Your task to perform on an android device: Go to accessibility settings Image 0: 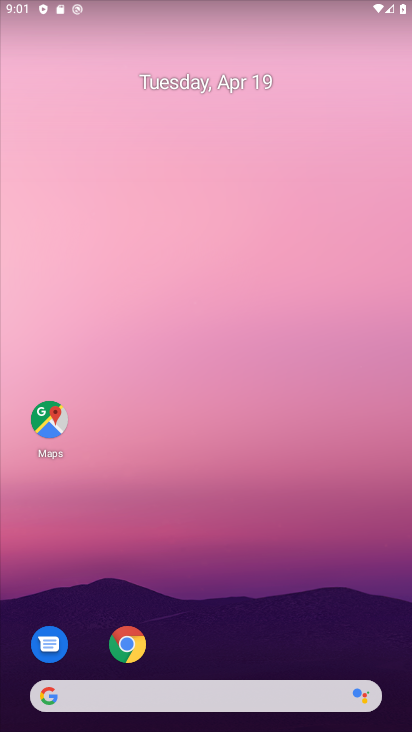
Step 0: drag from (280, 628) to (218, 14)
Your task to perform on an android device: Go to accessibility settings Image 1: 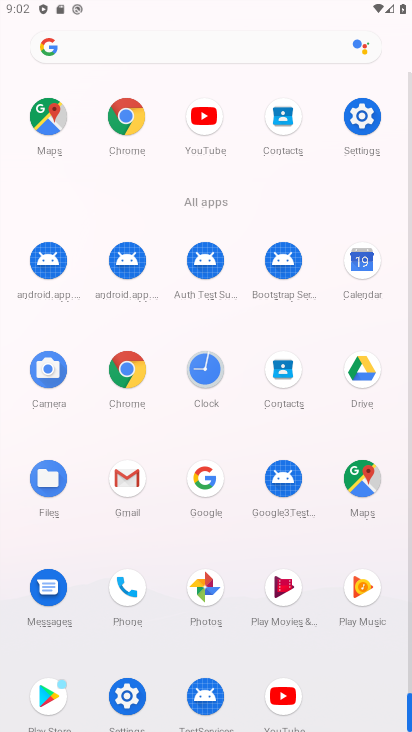
Step 1: click (354, 122)
Your task to perform on an android device: Go to accessibility settings Image 2: 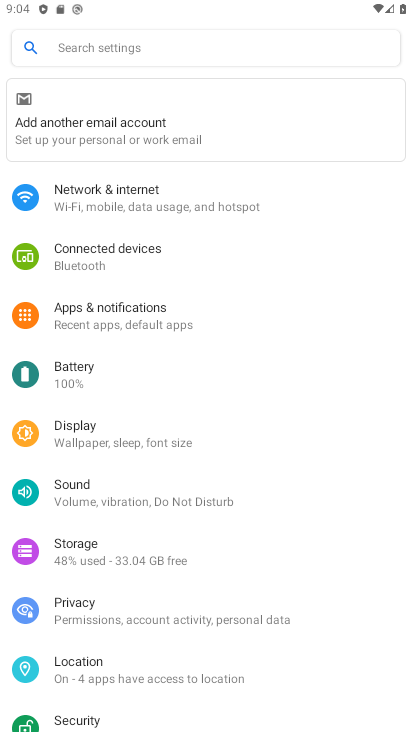
Step 2: drag from (213, 658) to (179, 5)
Your task to perform on an android device: Go to accessibility settings Image 3: 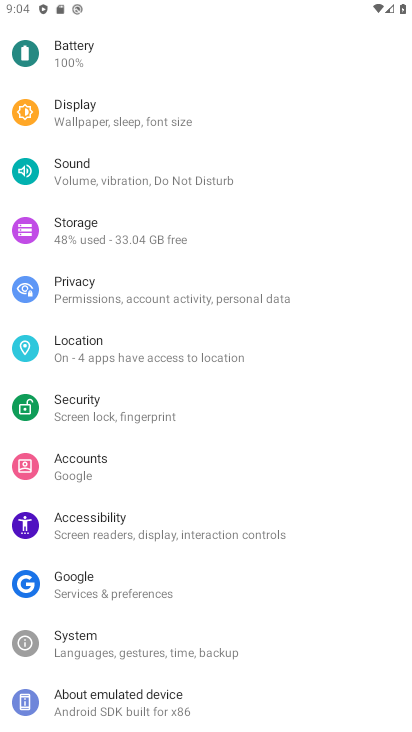
Step 3: drag from (297, 661) to (239, 39)
Your task to perform on an android device: Go to accessibility settings Image 4: 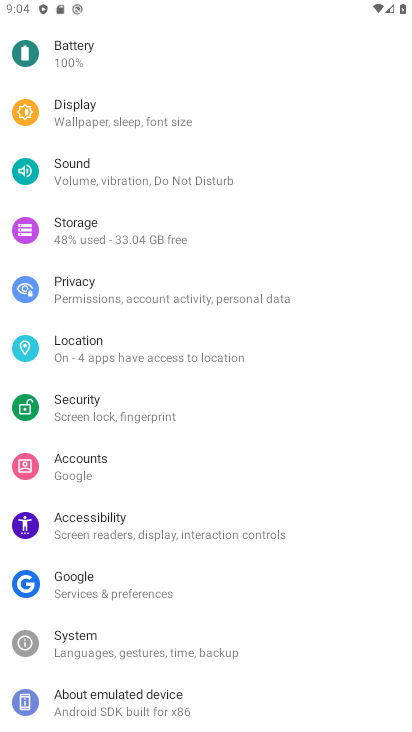
Step 4: click (67, 541)
Your task to perform on an android device: Go to accessibility settings Image 5: 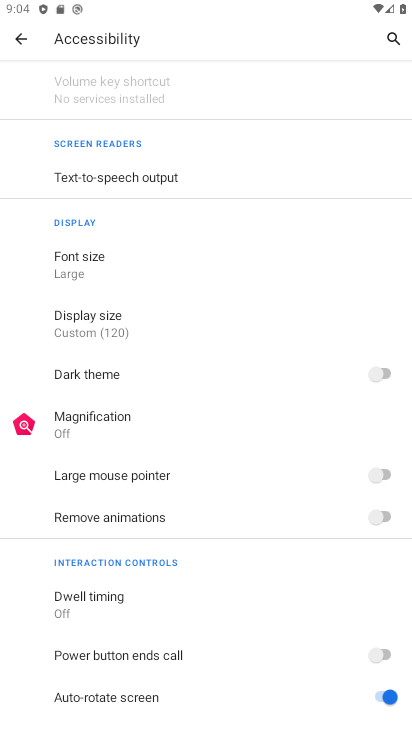
Step 5: task complete